Your task to perform on an android device: What's on my calendar tomorrow? Image 0: 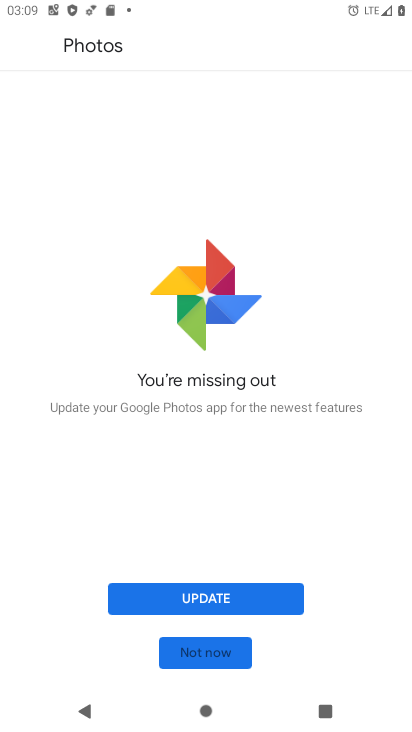
Step 0: press home button
Your task to perform on an android device: What's on my calendar tomorrow? Image 1: 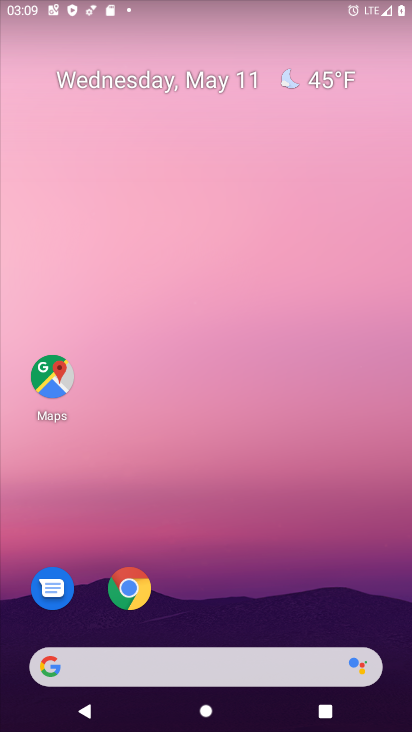
Step 1: drag from (217, 602) to (208, 221)
Your task to perform on an android device: What's on my calendar tomorrow? Image 2: 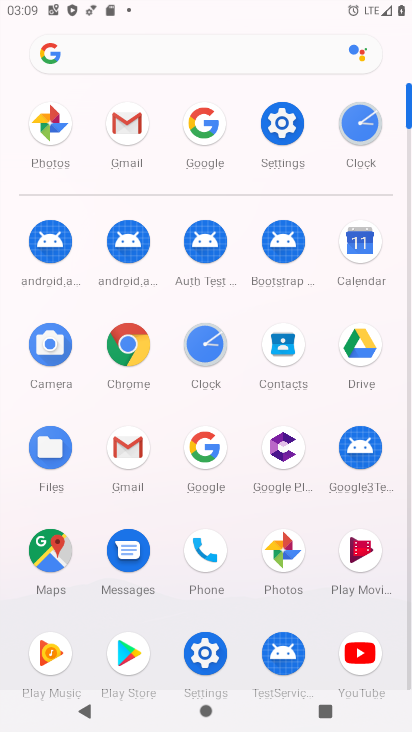
Step 2: click (365, 284)
Your task to perform on an android device: What's on my calendar tomorrow? Image 3: 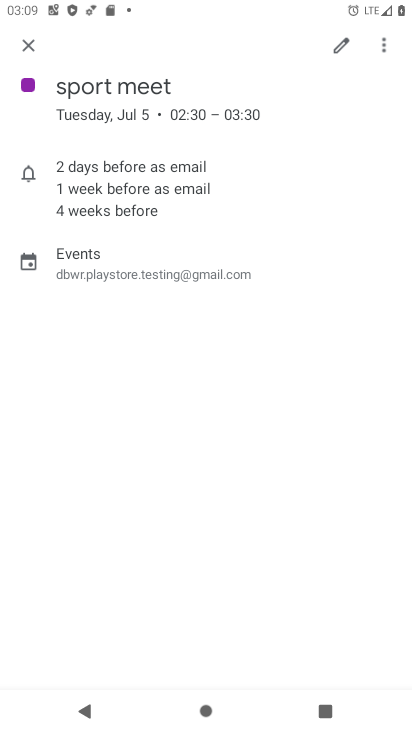
Step 3: click (33, 47)
Your task to perform on an android device: What's on my calendar tomorrow? Image 4: 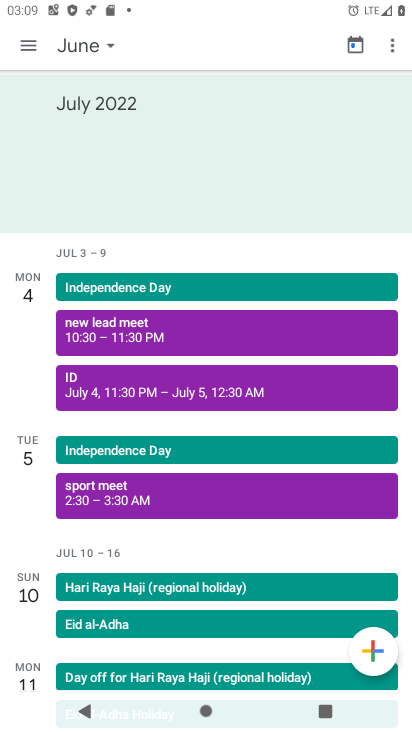
Step 4: click (104, 54)
Your task to perform on an android device: What's on my calendar tomorrow? Image 5: 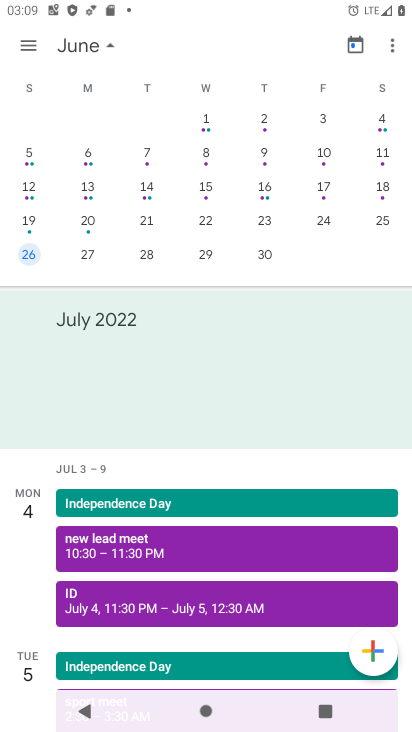
Step 5: drag from (61, 161) to (380, 150)
Your task to perform on an android device: What's on my calendar tomorrow? Image 6: 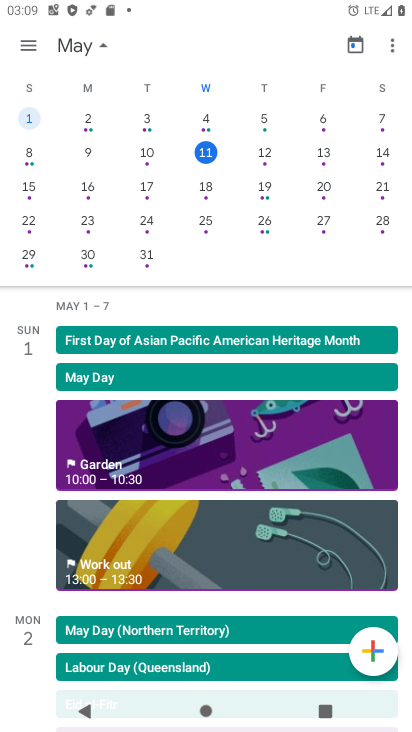
Step 6: click (258, 159)
Your task to perform on an android device: What's on my calendar tomorrow? Image 7: 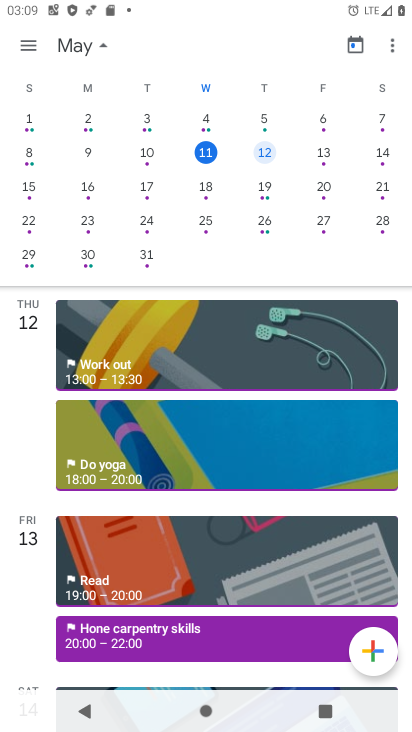
Step 7: task complete